Your task to perform on an android device: Go to settings Image 0: 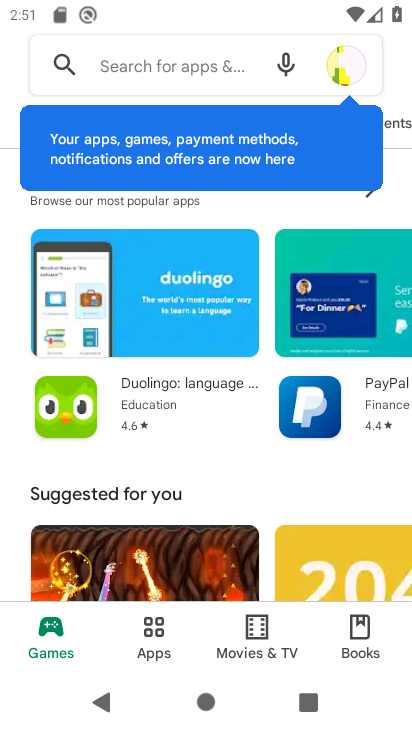
Step 0: press home button
Your task to perform on an android device: Go to settings Image 1: 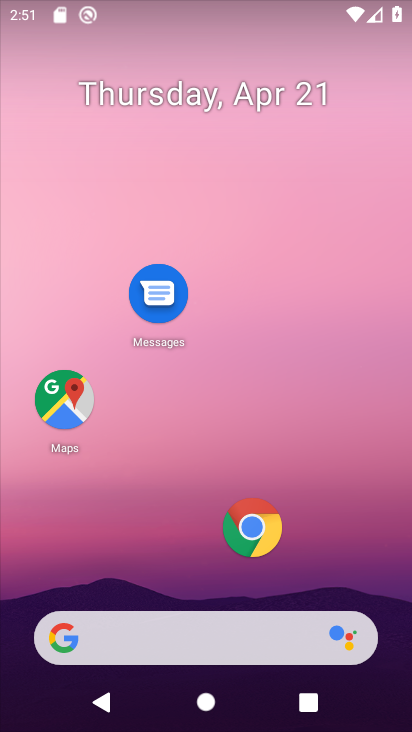
Step 1: drag from (239, 556) to (311, 168)
Your task to perform on an android device: Go to settings Image 2: 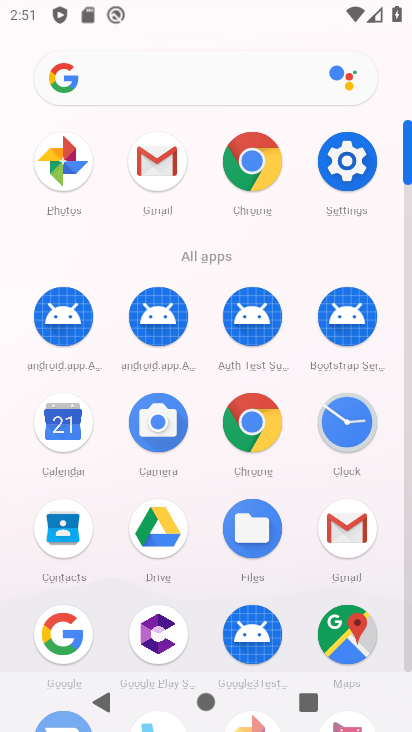
Step 2: click (332, 158)
Your task to perform on an android device: Go to settings Image 3: 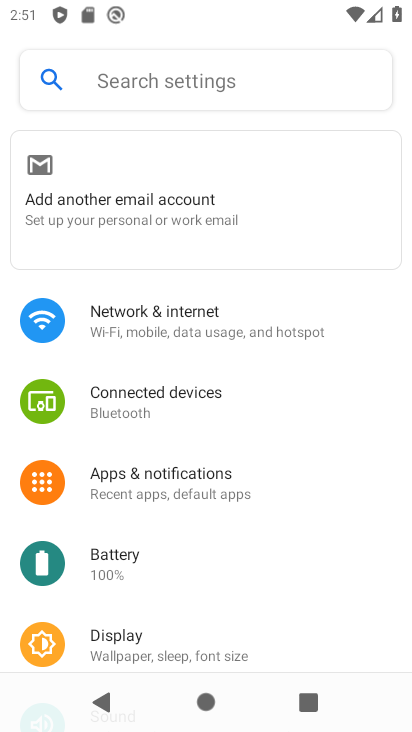
Step 3: click (241, 290)
Your task to perform on an android device: Go to settings Image 4: 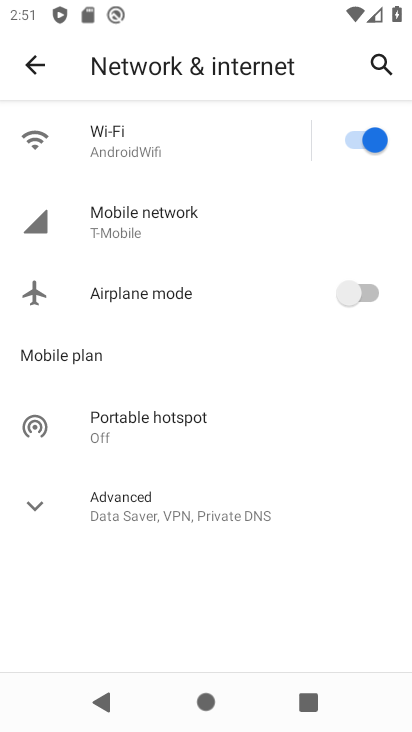
Step 4: click (140, 497)
Your task to perform on an android device: Go to settings Image 5: 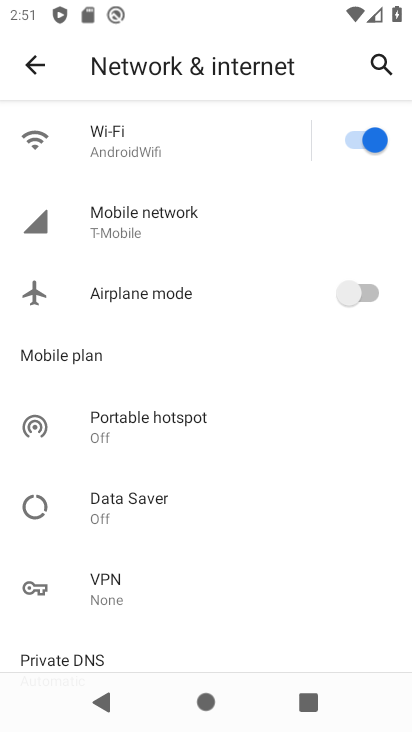
Step 5: task complete